Your task to perform on an android device: toggle pop-ups in chrome Image 0: 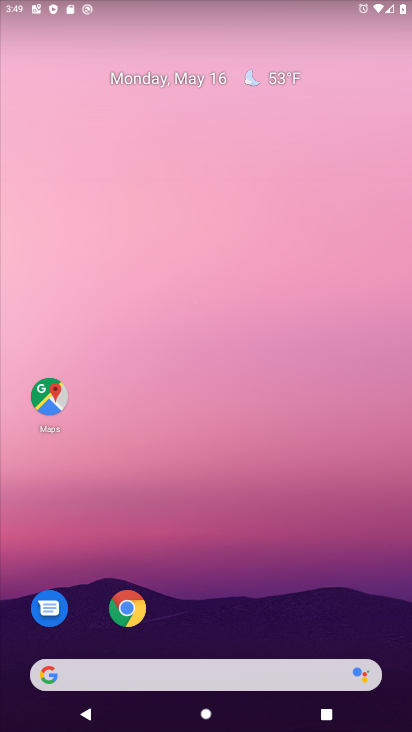
Step 0: click (128, 610)
Your task to perform on an android device: toggle pop-ups in chrome Image 1: 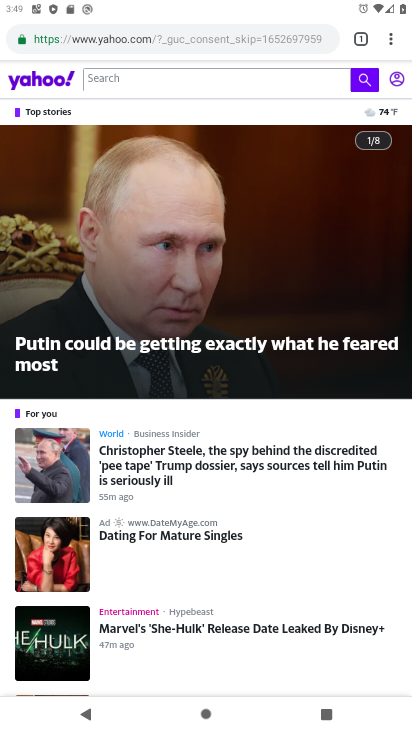
Step 1: click (391, 40)
Your task to perform on an android device: toggle pop-ups in chrome Image 2: 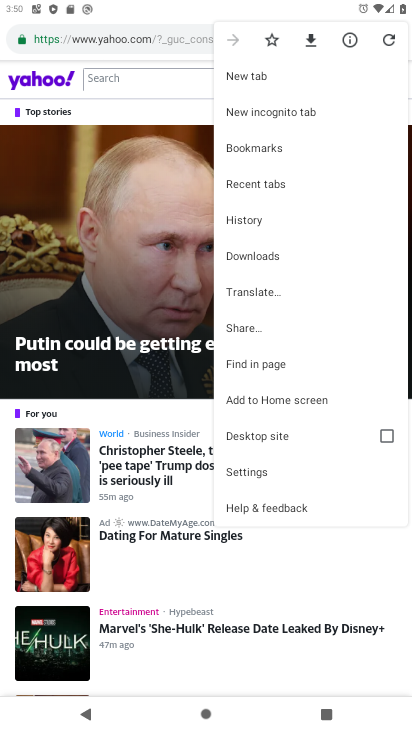
Step 2: click (252, 473)
Your task to perform on an android device: toggle pop-ups in chrome Image 3: 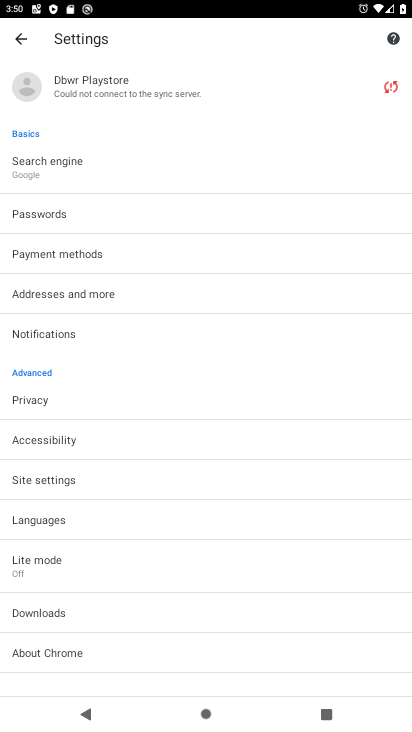
Step 3: click (42, 480)
Your task to perform on an android device: toggle pop-ups in chrome Image 4: 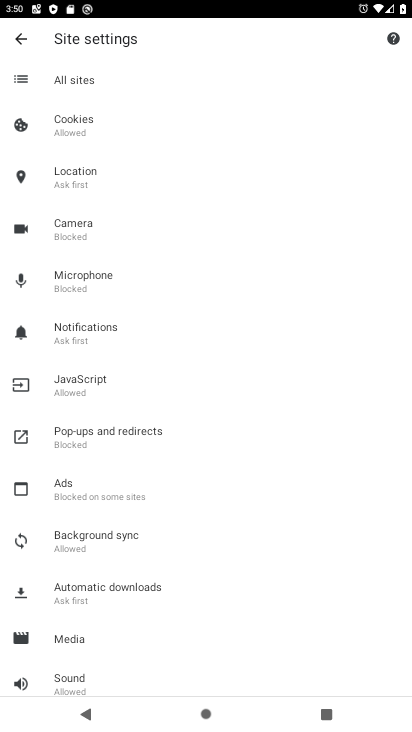
Step 4: click (75, 434)
Your task to perform on an android device: toggle pop-ups in chrome Image 5: 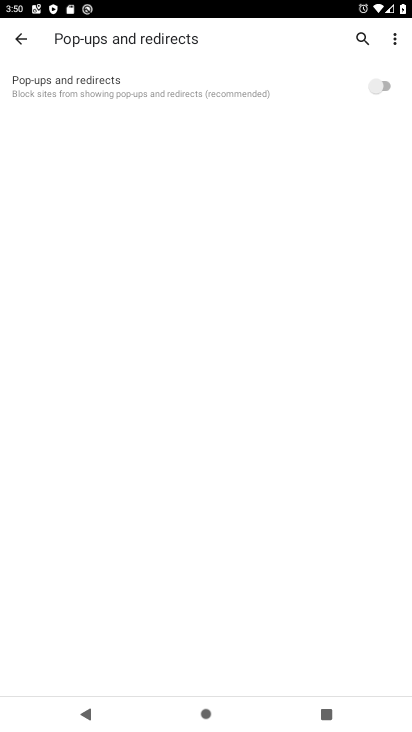
Step 5: click (375, 90)
Your task to perform on an android device: toggle pop-ups in chrome Image 6: 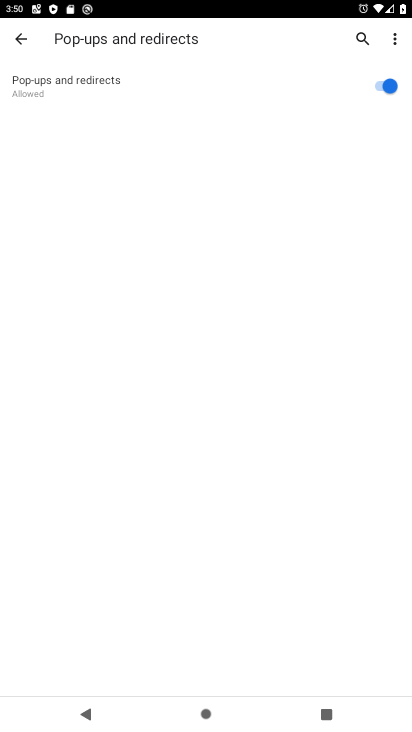
Step 6: task complete